Your task to perform on an android device: turn notification dots off Image 0: 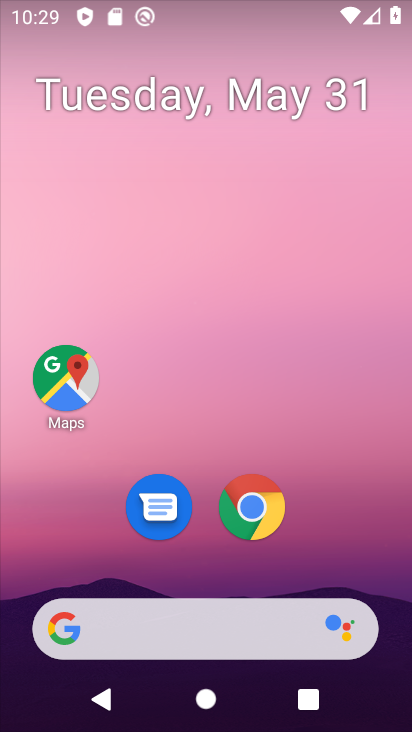
Step 0: drag from (70, 610) to (184, 110)
Your task to perform on an android device: turn notification dots off Image 1: 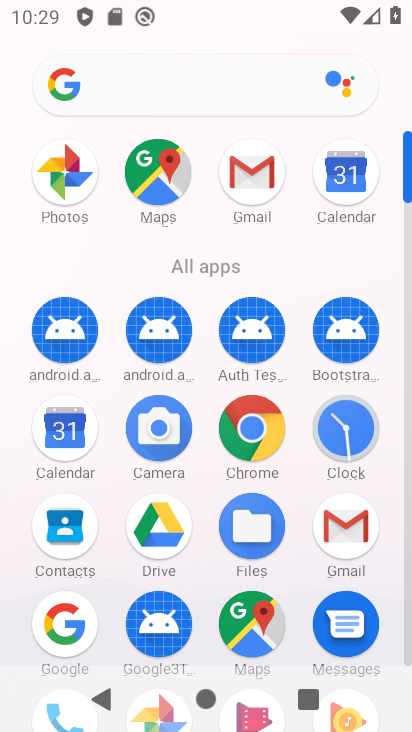
Step 1: drag from (205, 621) to (288, 322)
Your task to perform on an android device: turn notification dots off Image 2: 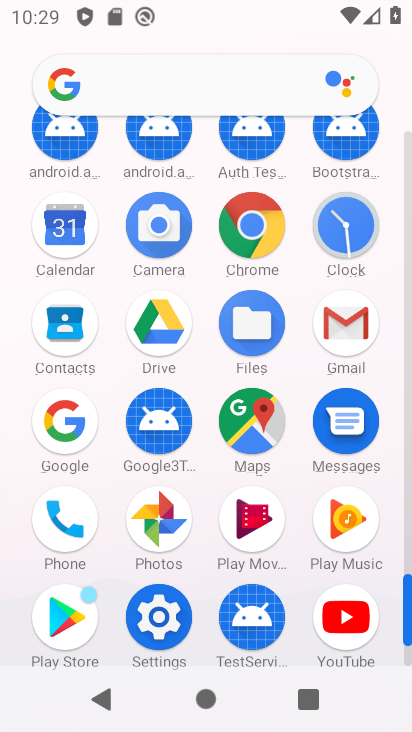
Step 2: click (182, 618)
Your task to perform on an android device: turn notification dots off Image 3: 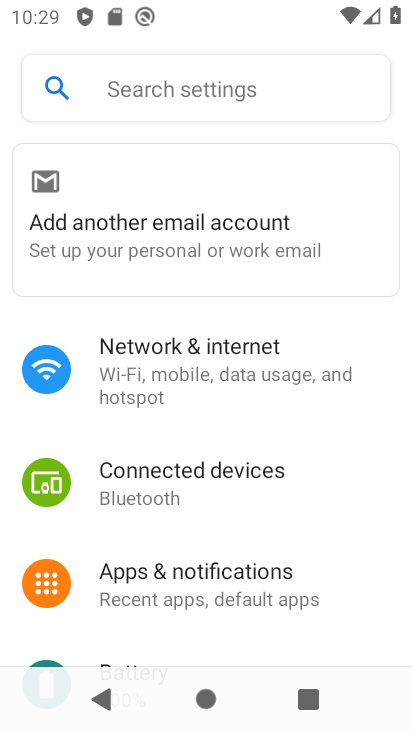
Step 3: click (224, 577)
Your task to perform on an android device: turn notification dots off Image 4: 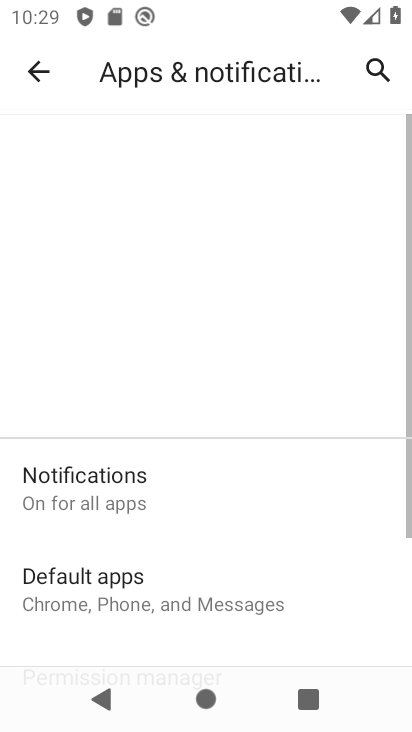
Step 4: drag from (234, 565) to (335, 129)
Your task to perform on an android device: turn notification dots off Image 5: 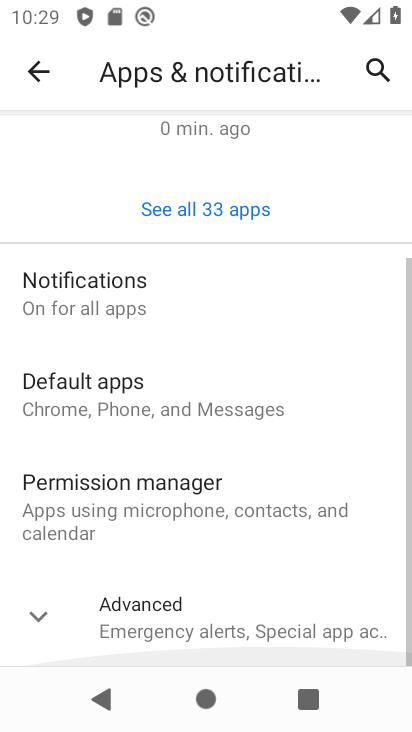
Step 5: click (227, 622)
Your task to perform on an android device: turn notification dots off Image 6: 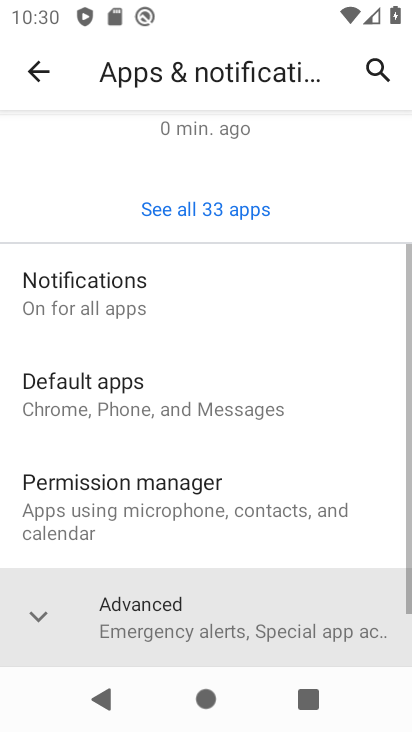
Step 6: drag from (226, 623) to (320, 271)
Your task to perform on an android device: turn notification dots off Image 7: 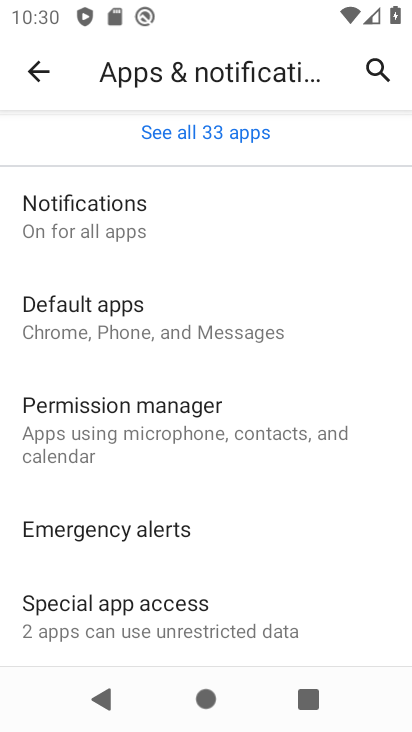
Step 7: click (264, 219)
Your task to perform on an android device: turn notification dots off Image 8: 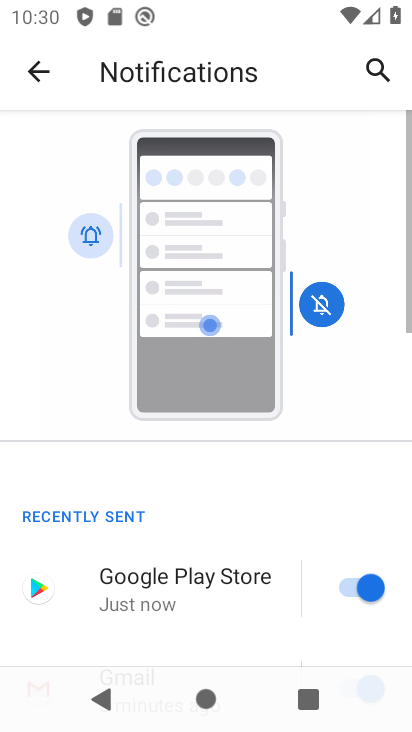
Step 8: drag from (145, 547) to (368, 55)
Your task to perform on an android device: turn notification dots off Image 9: 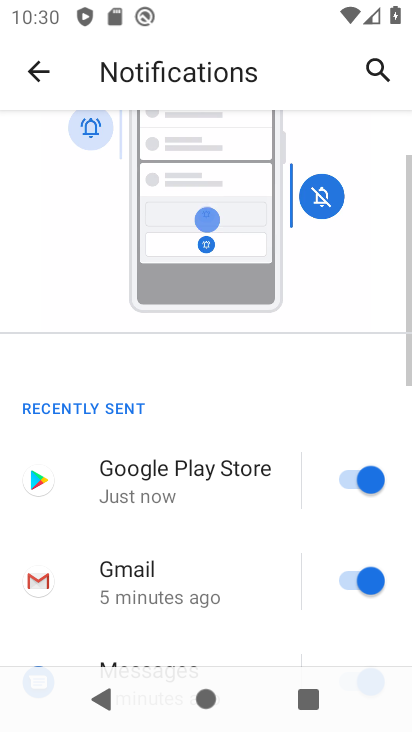
Step 9: drag from (228, 605) to (397, 45)
Your task to perform on an android device: turn notification dots off Image 10: 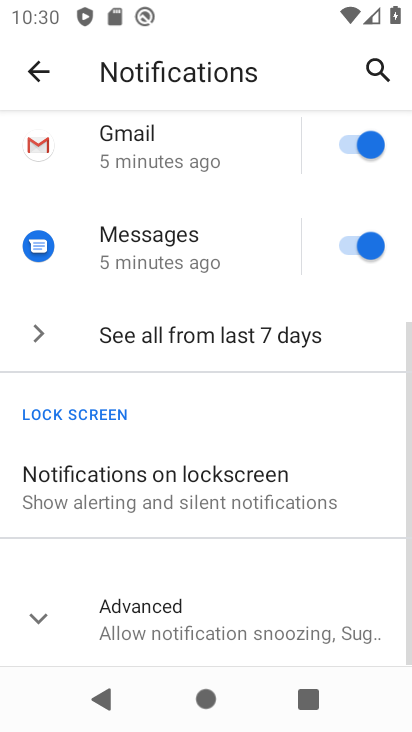
Step 10: click (225, 625)
Your task to perform on an android device: turn notification dots off Image 11: 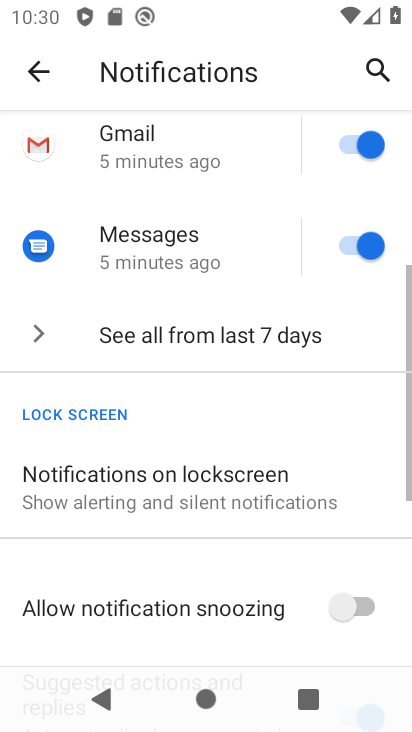
Step 11: drag from (223, 619) to (369, 112)
Your task to perform on an android device: turn notification dots off Image 12: 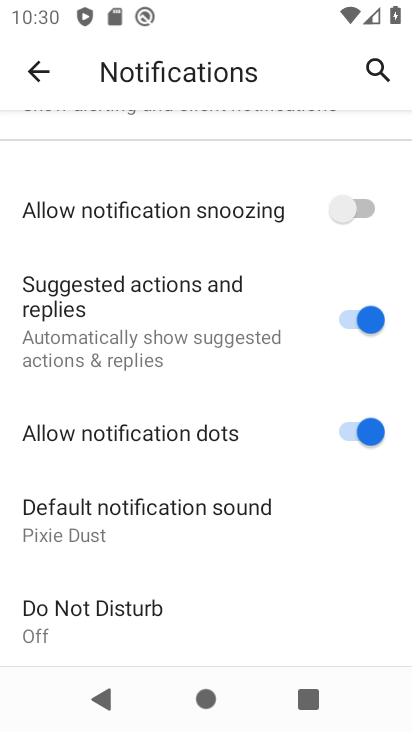
Step 12: click (342, 447)
Your task to perform on an android device: turn notification dots off Image 13: 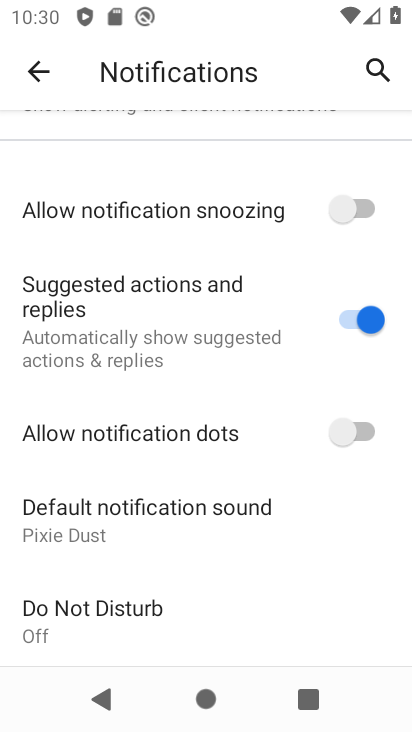
Step 13: task complete